Your task to perform on an android device: Find coffee shops on Maps Image 0: 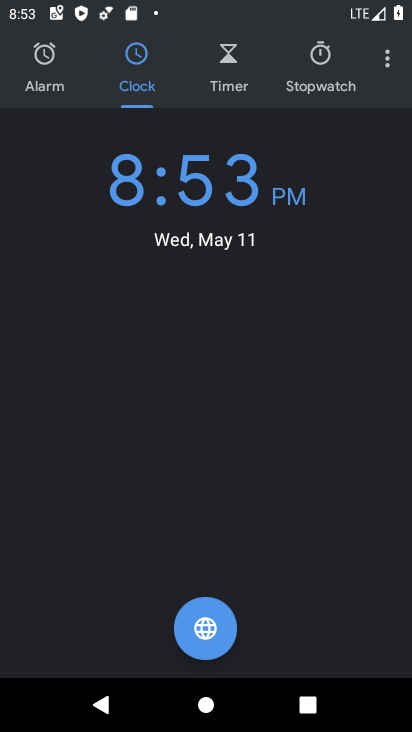
Step 0: press home button
Your task to perform on an android device: Find coffee shops on Maps Image 1: 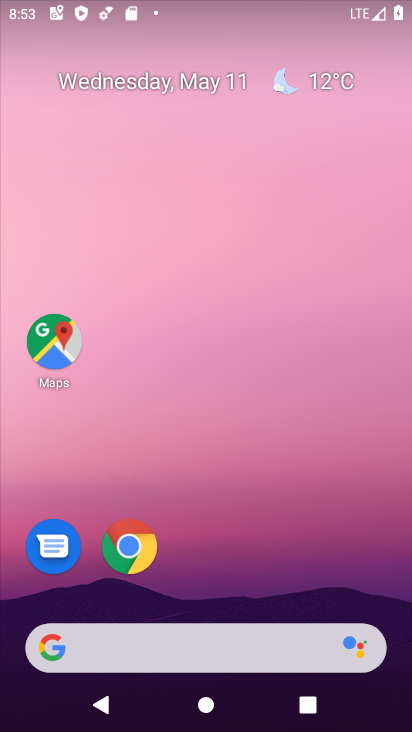
Step 1: click (53, 342)
Your task to perform on an android device: Find coffee shops on Maps Image 2: 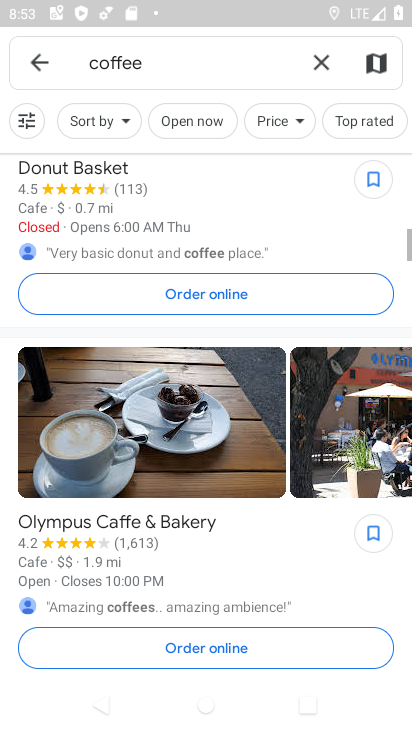
Step 2: task complete